Your task to perform on an android device: delete location history Image 0: 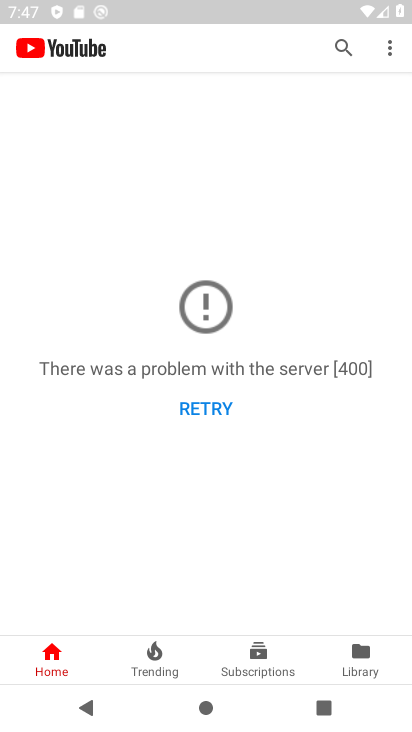
Step 0: press home button
Your task to perform on an android device: delete location history Image 1: 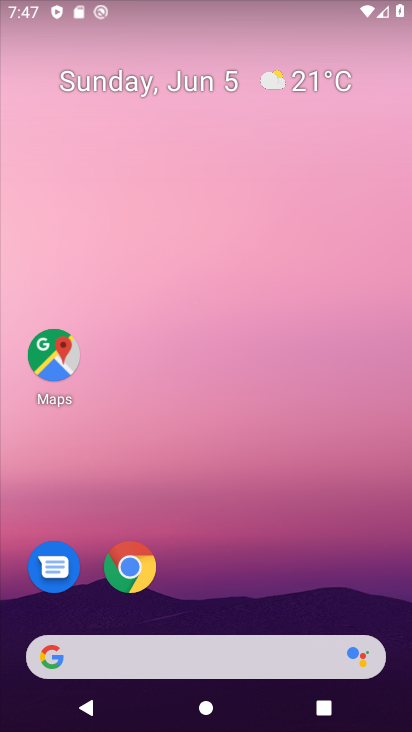
Step 1: drag from (190, 635) to (202, 362)
Your task to perform on an android device: delete location history Image 2: 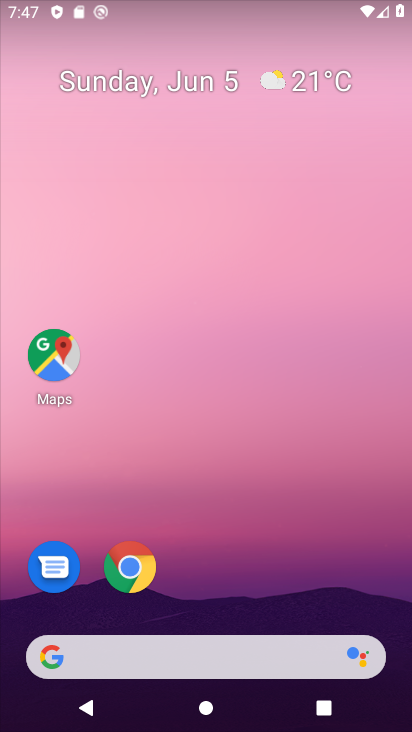
Step 2: drag from (249, 632) to (260, 356)
Your task to perform on an android device: delete location history Image 3: 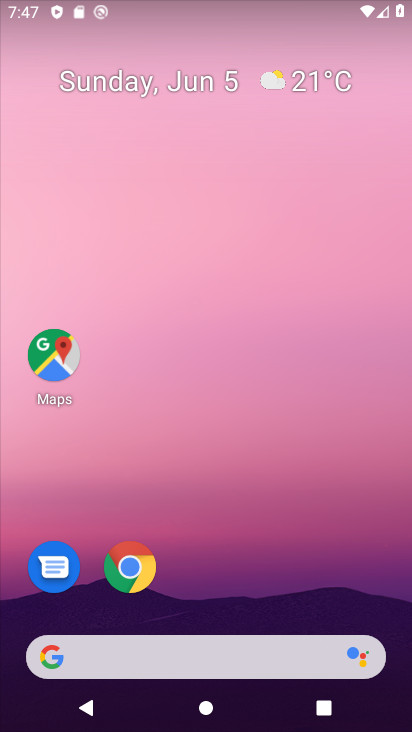
Step 3: drag from (227, 634) to (225, 244)
Your task to perform on an android device: delete location history Image 4: 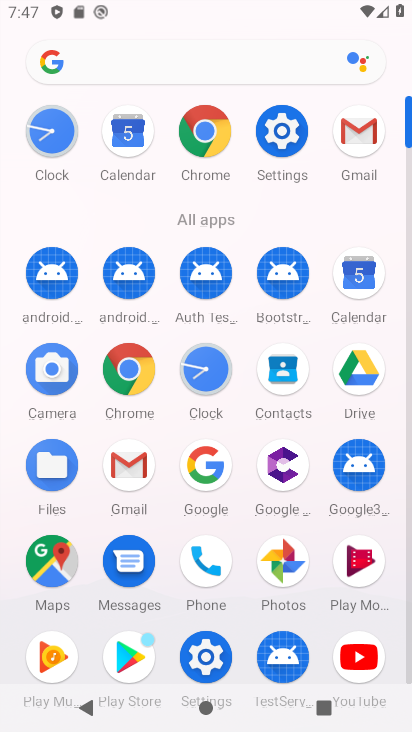
Step 4: click (280, 157)
Your task to perform on an android device: delete location history Image 5: 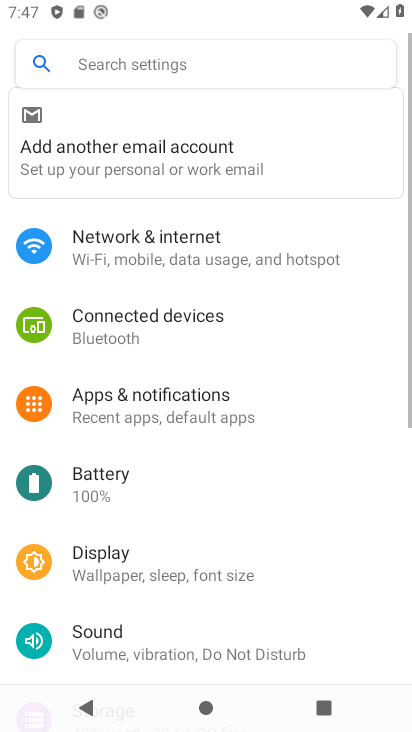
Step 5: drag from (175, 656) to (187, 344)
Your task to perform on an android device: delete location history Image 6: 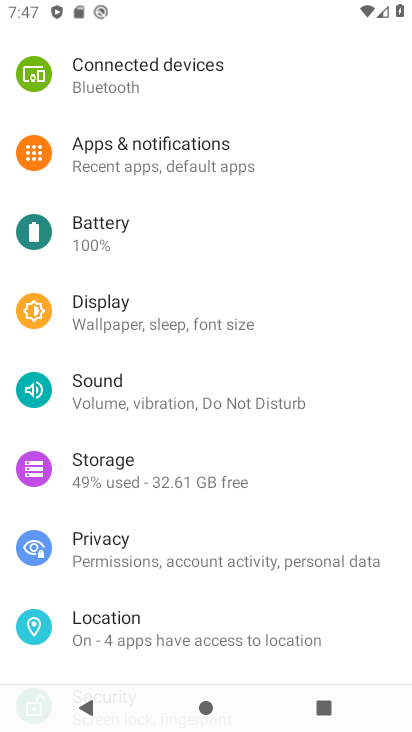
Step 6: click (115, 634)
Your task to perform on an android device: delete location history Image 7: 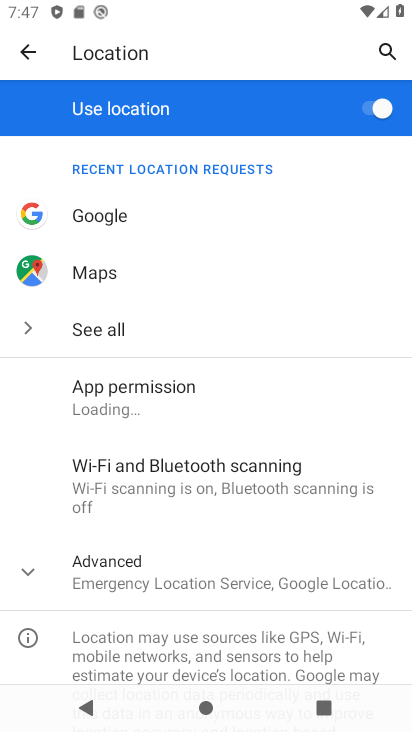
Step 7: click (103, 567)
Your task to perform on an android device: delete location history Image 8: 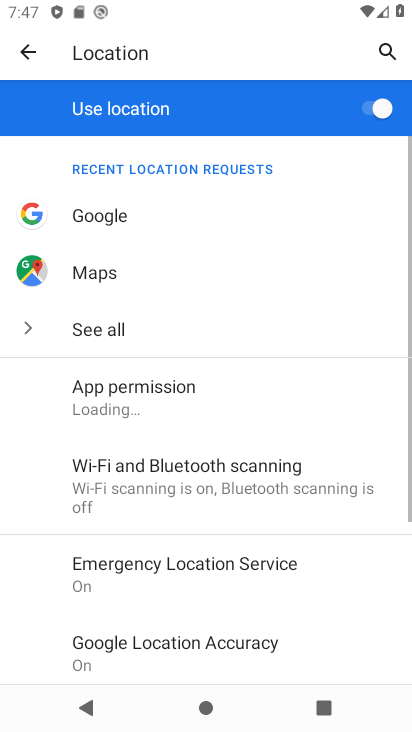
Step 8: drag from (137, 677) to (169, 410)
Your task to perform on an android device: delete location history Image 9: 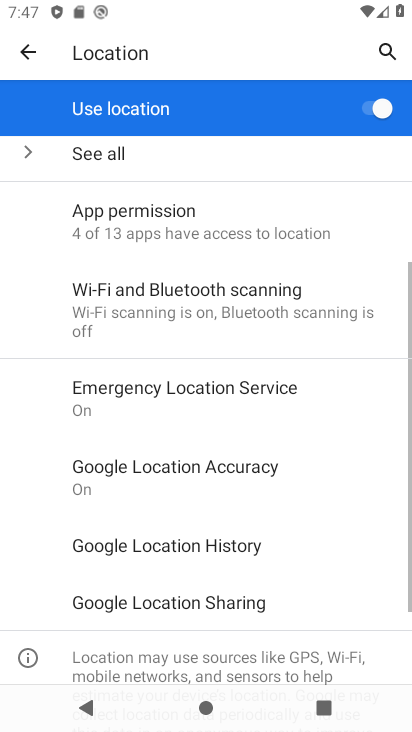
Step 9: click (200, 544)
Your task to perform on an android device: delete location history Image 10: 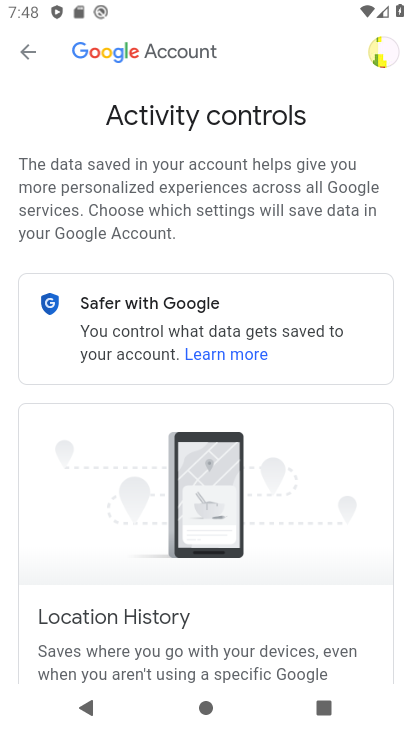
Step 10: drag from (268, 617) to (268, 183)
Your task to perform on an android device: delete location history Image 11: 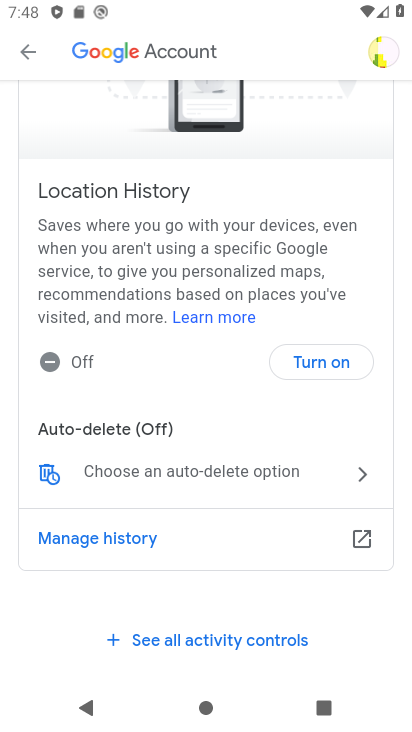
Step 11: drag from (174, 665) to (196, 175)
Your task to perform on an android device: delete location history Image 12: 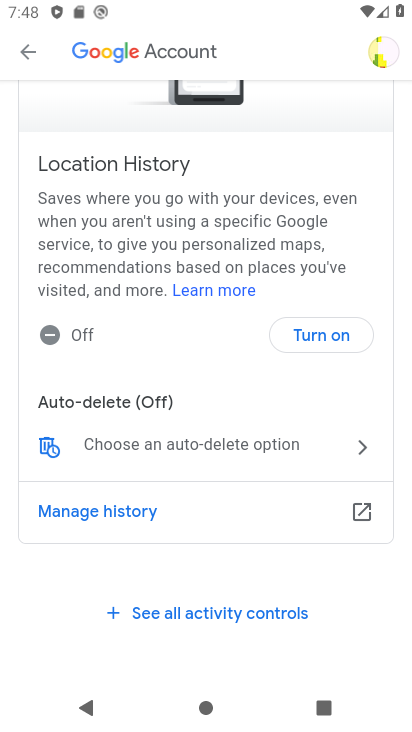
Step 12: click (192, 441)
Your task to perform on an android device: delete location history Image 13: 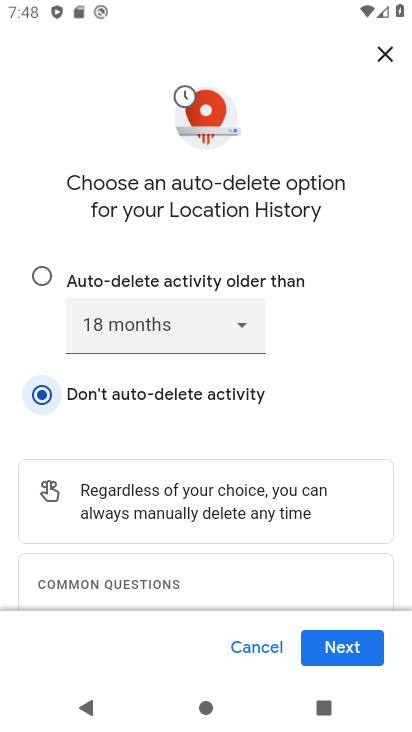
Step 13: click (361, 644)
Your task to perform on an android device: delete location history Image 14: 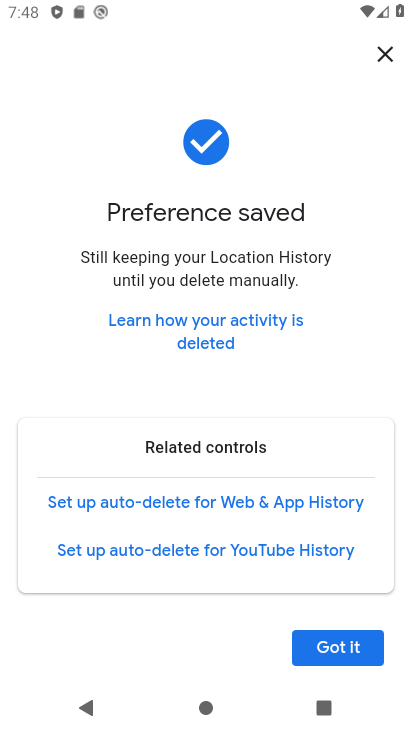
Step 14: click (341, 651)
Your task to perform on an android device: delete location history Image 15: 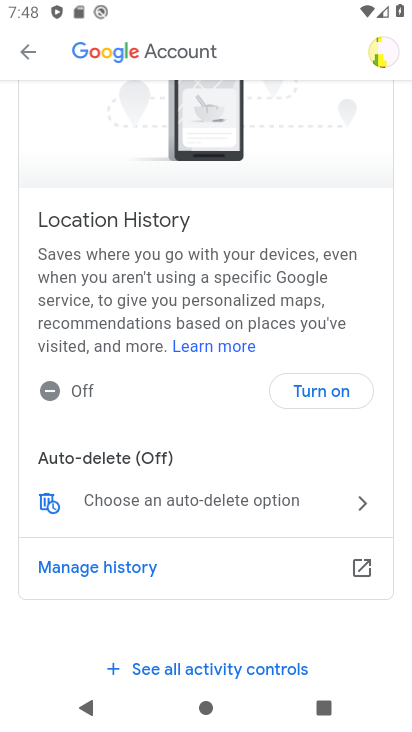
Step 15: task complete